Your task to perform on an android device: Open Youtube and go to "Your channel" Image 0: 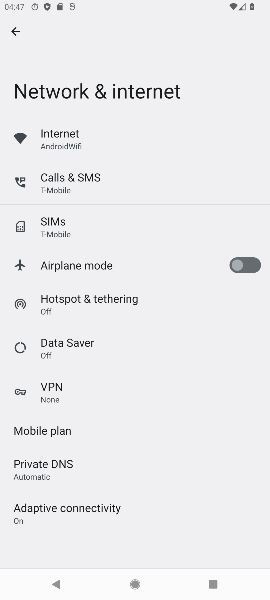
Step 0: press home button
Your task to perform on an android device: Open Youtube and go to "Your channel" Image 1: 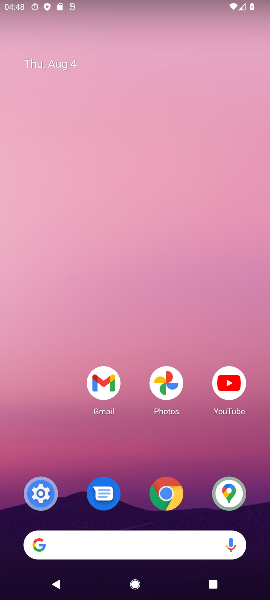
Step 1: click (237, 393)
Your task to perform on an android device: Open Youtube and go to "Your channel" Image 2: 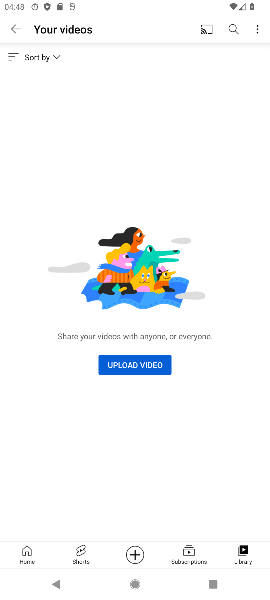
Step 2: click (244, 540)
Your task to perform on an android device: Open Youtube and go to "Your channel" Image 3: 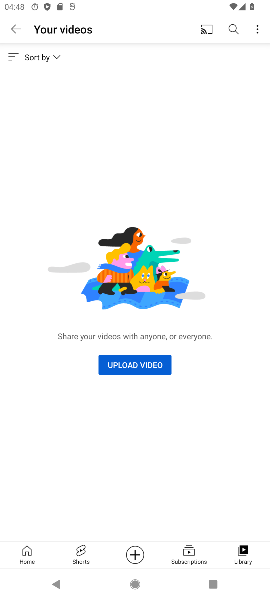
Step 3: click (243, 553)
Your task to perform on an android device: Open Youtube and go to "Your channel" Image 4: 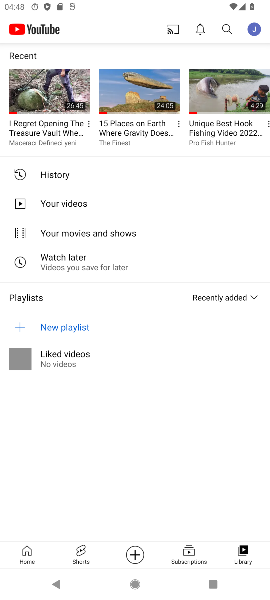
Step 4: click (54, 210)
Your task to perform on an android device: Open Youtube and go to "Your channel" Image 5: 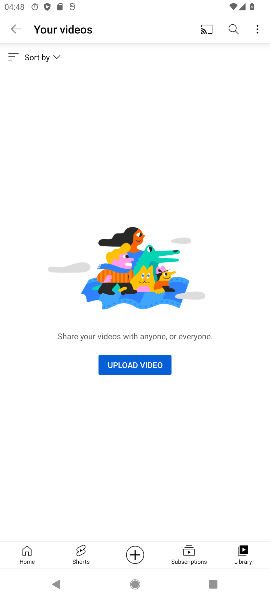
Step 5: task complete